Your task to perform on an android device: Search for the new nike shoes on Target Image 0: 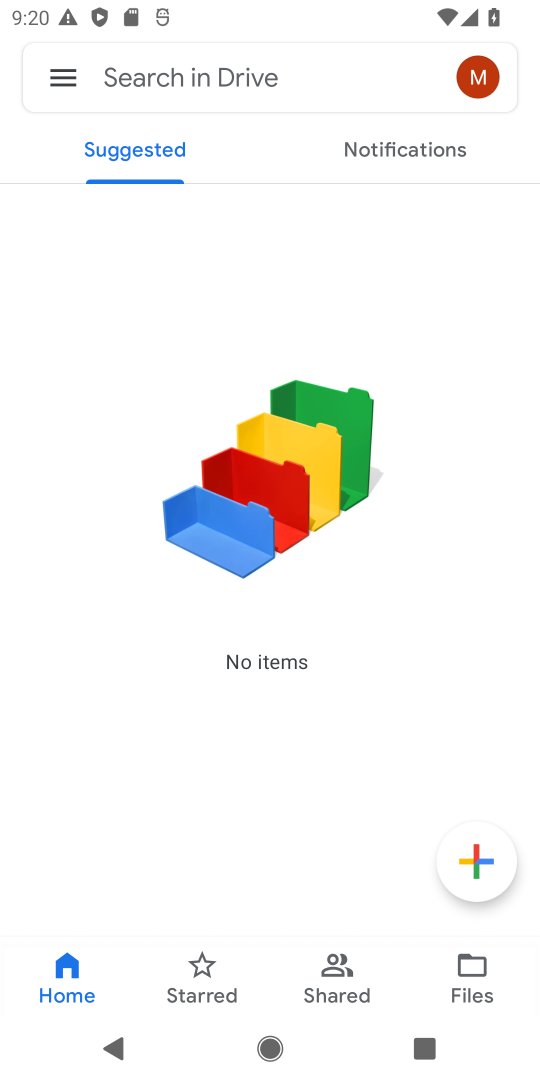
Step 0: press home button
Your task to perform on an android device: Search for the new nike shoes on Target Image 1: 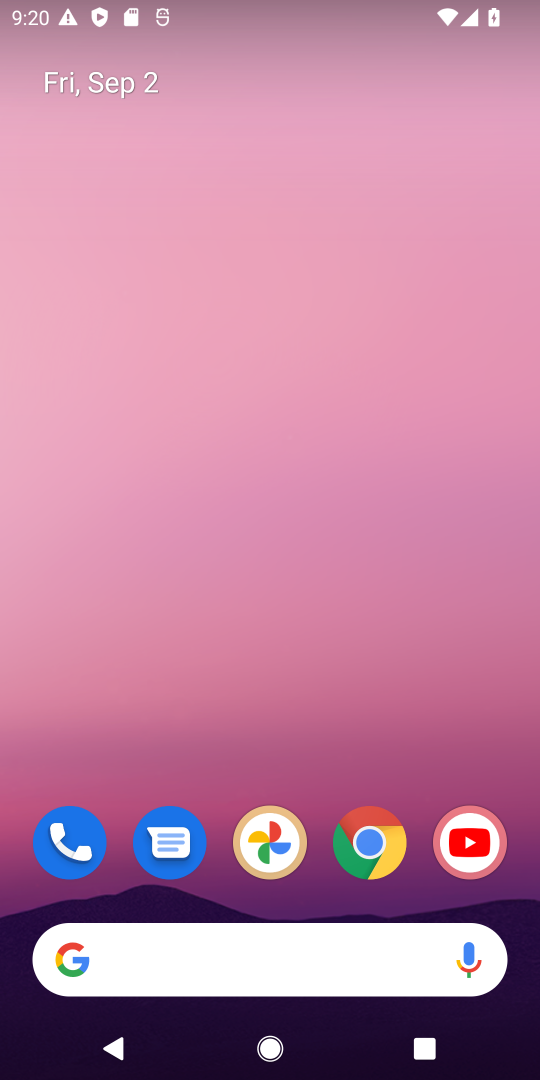
Step 1: drag from (239, 791) to (250, 122)
Your task to perform on an android device: Search for the new nike shoes on Target Image 2: 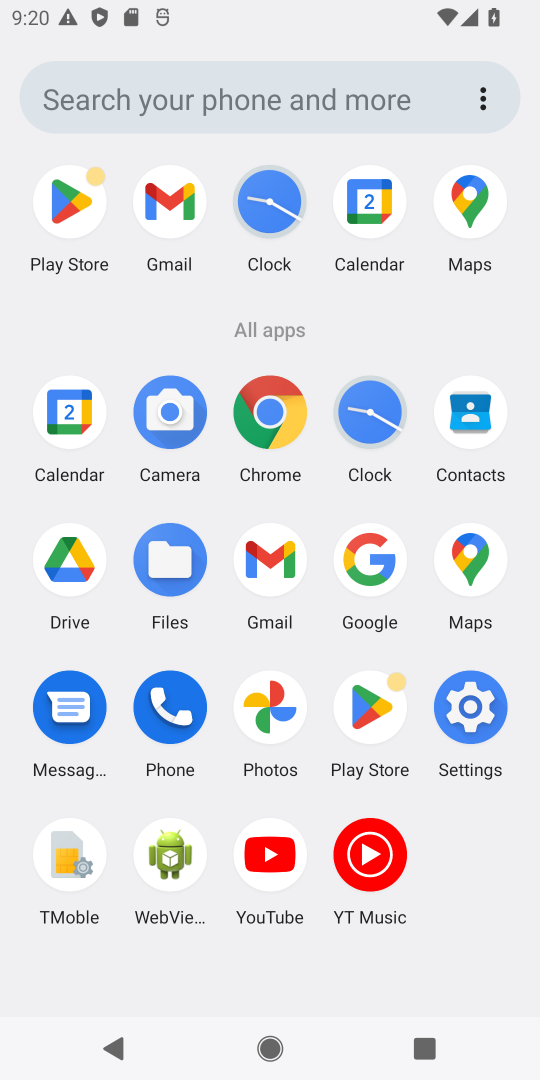
Step 2: click (278, 411)
Your task to perform on an android device: Search for the new nike shoes on Target Image 3: 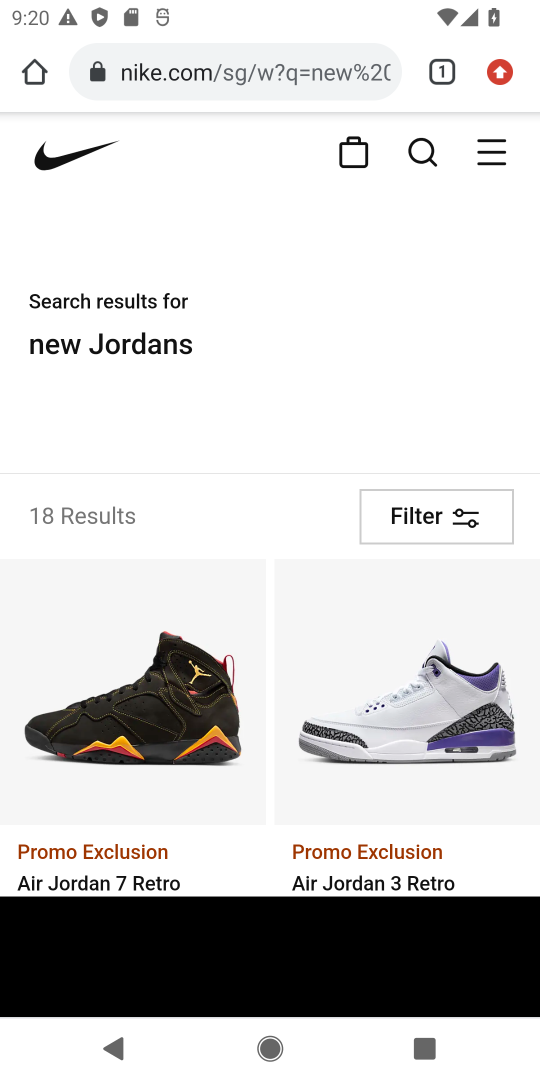
Step 3: click (252, 84)
Your task to perform on an android device: Search for the new nike shoes on Target Image 4: 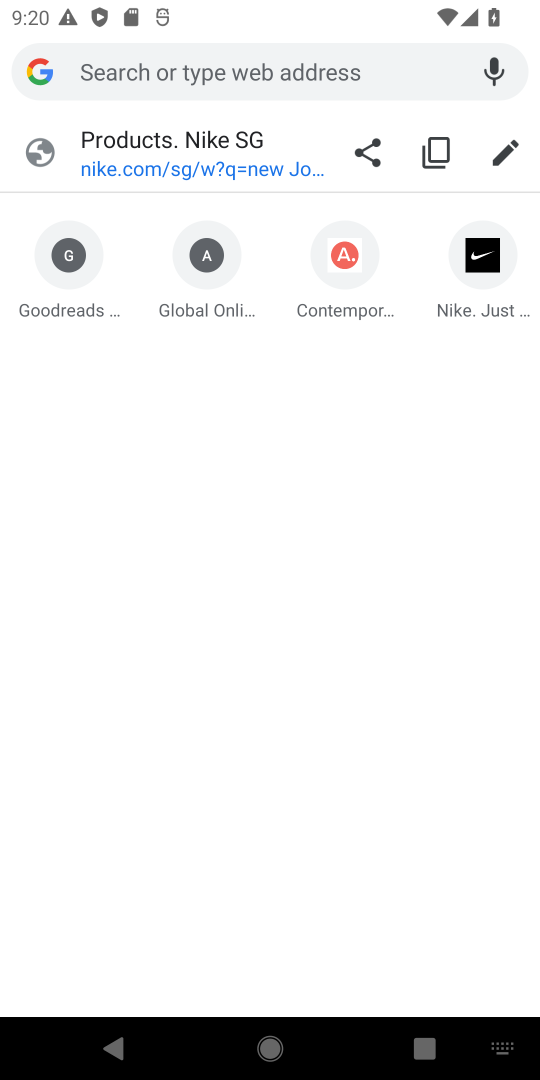
Step 4: press enter
Your task to perform on an android device: Search for the new nike shoes on Target Image 5: 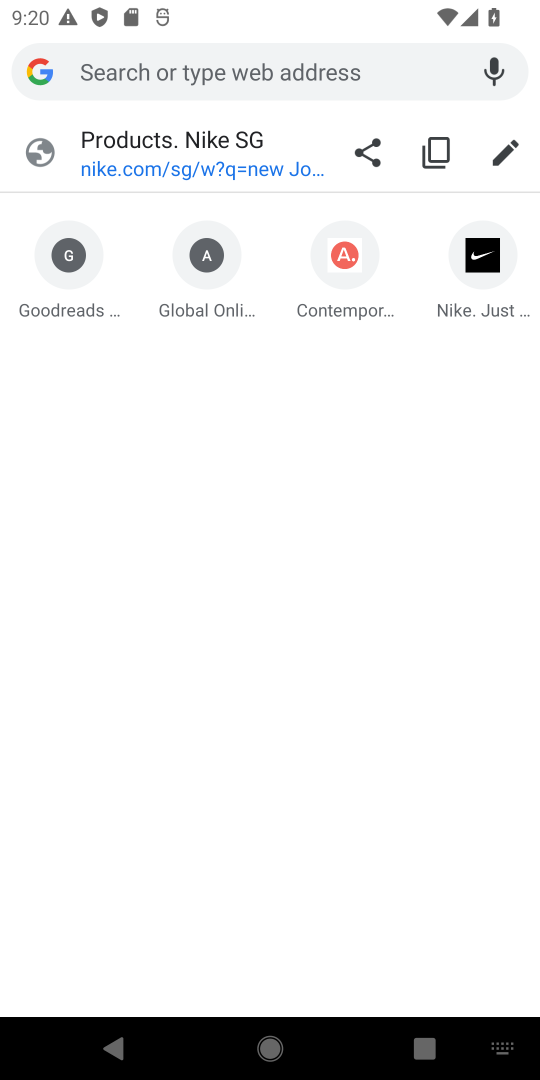
Step 5: type "Target"
Your task to perform on an android device: Search for the new nike shoes on Target Image 6: 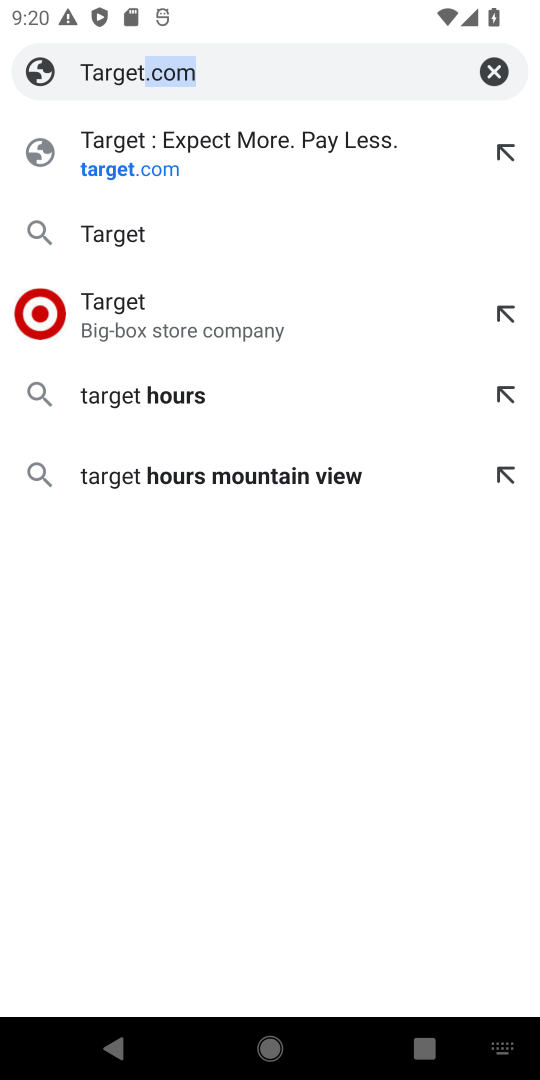
Step 6: press enter
Your task to perform on an android device: Search for the new nike shoes on Target Image 7: 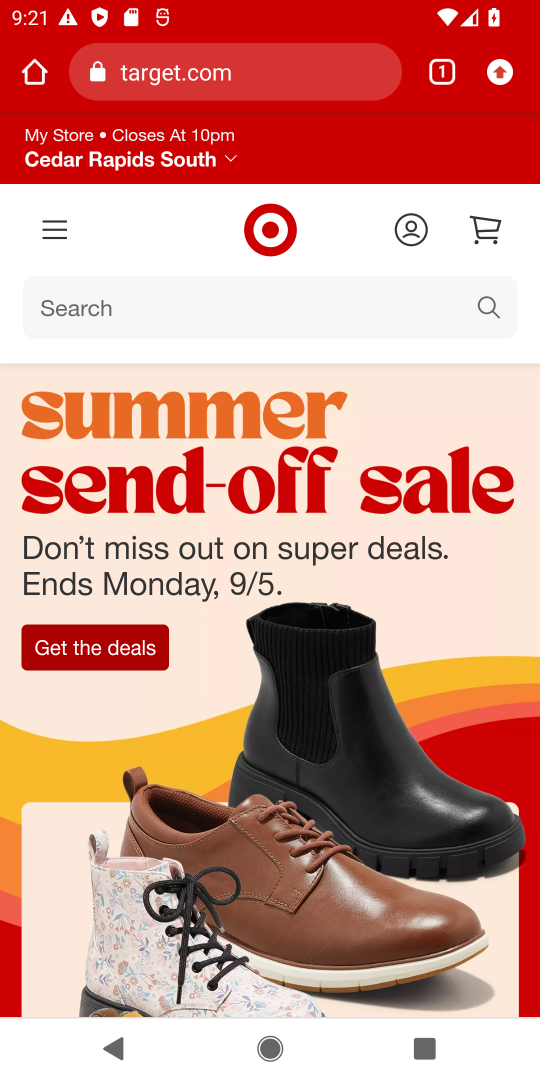
Step 7: click (479, 314)
Your task to perform on an android device: Search for the new nike shoes on Target Image 8: 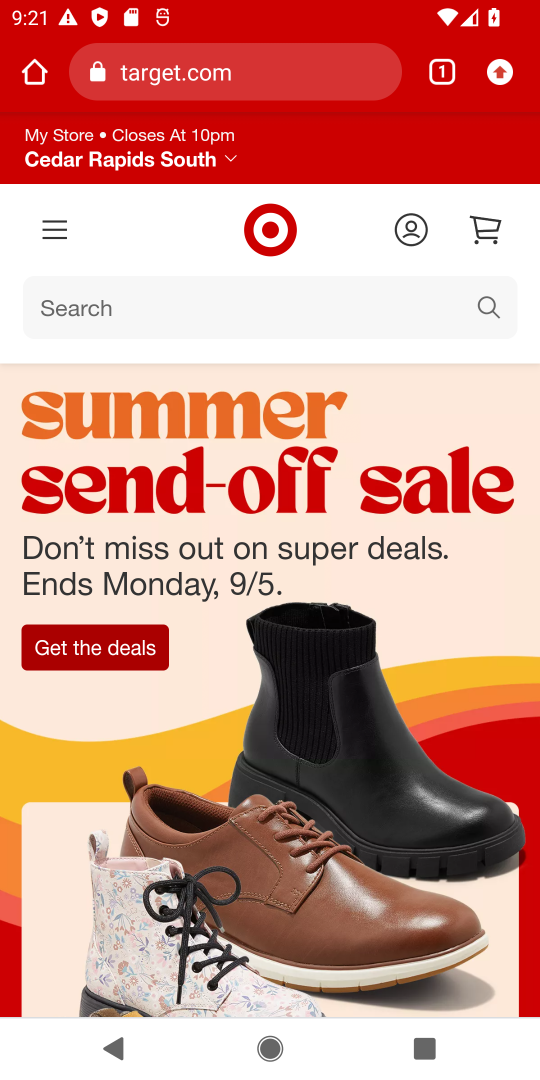
Step 8: click (329, 327)
Your task to perform on an android device: Search for the new nike shoes on Target Image 9: 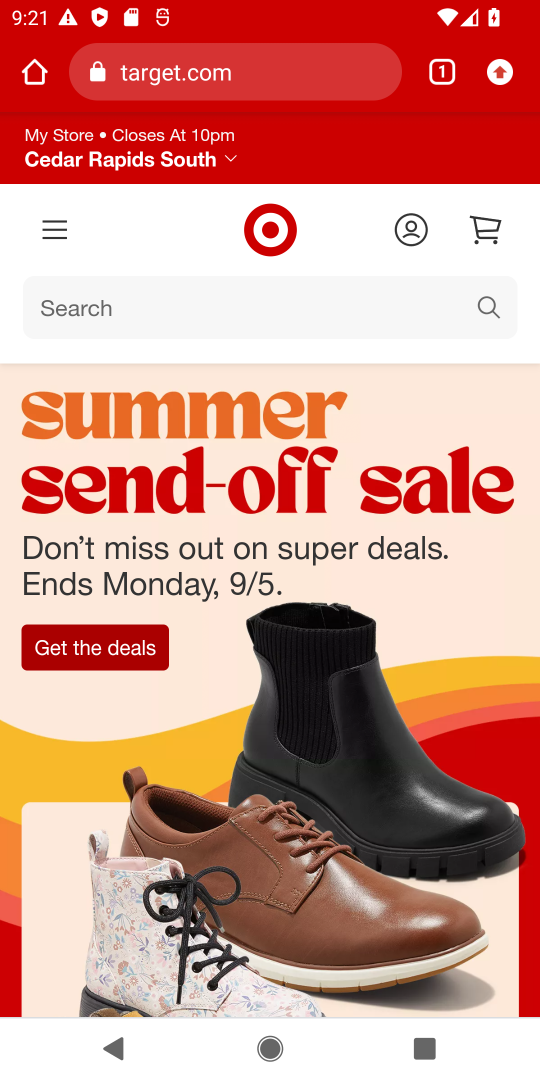
Step 9: click (82, 303)
Your task to perform on an android device: Search for the new nike shoes on Target Image 10: 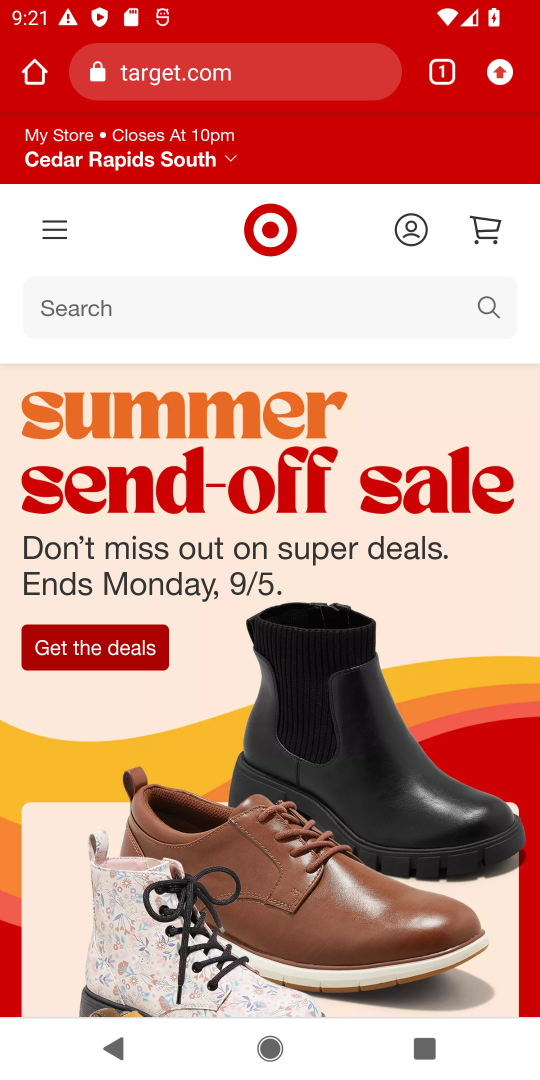
Step 10: click (488, 302)
Your task to perform on an android device: Search for the new nike shoes on Target Image 11: 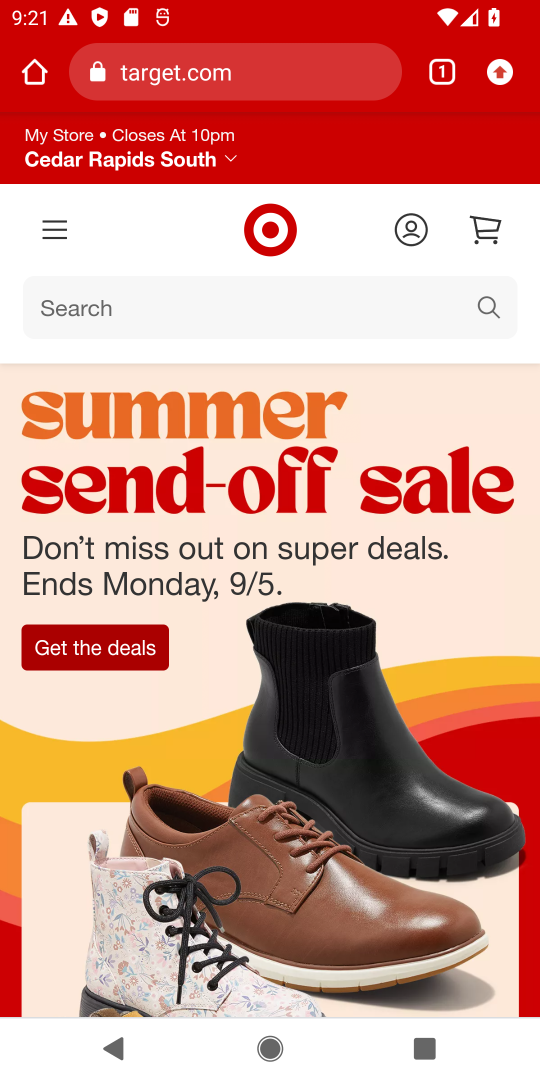
Step 11: click (271, 311)
Your task to perform on an android device: Search for the new nike shoes on Target Image 12: 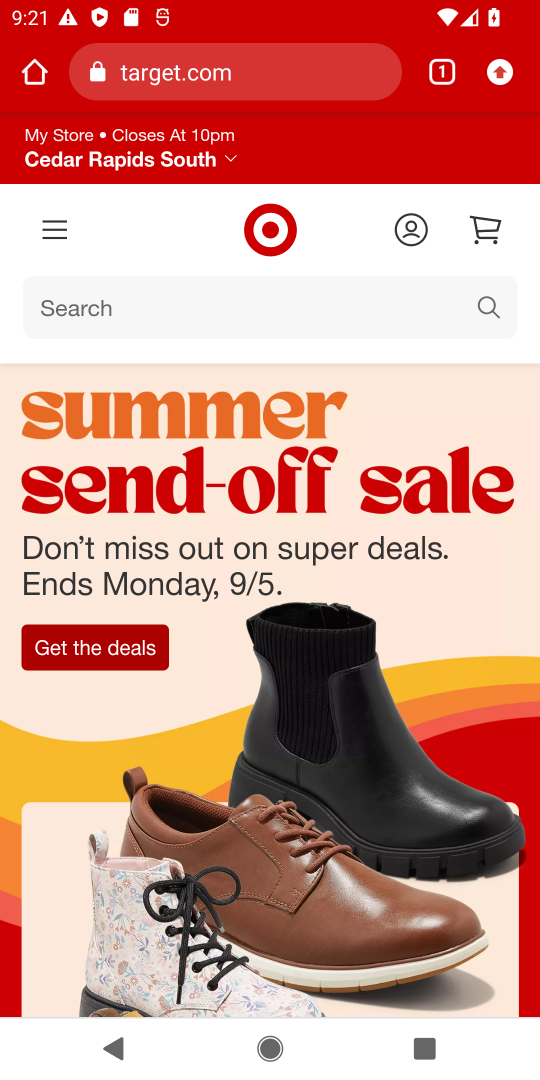
Step 12: click (93, 306)
Your task to perform on an android device: Search for the new nike shoes on Target Image 13: 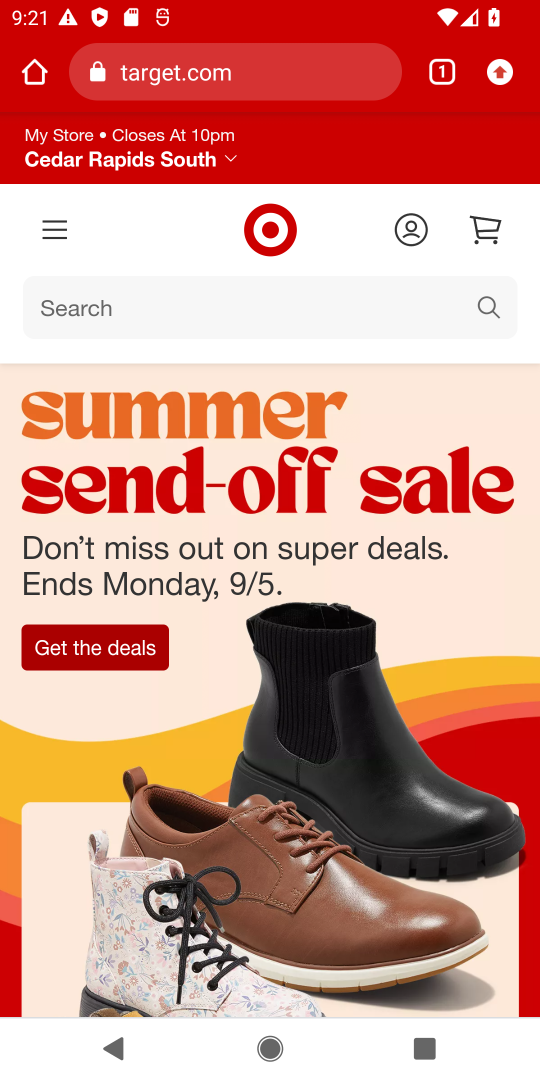
Step 13: click (93, 305)
Your task to perform on an android device: Search for the new nike shoes on Target Image 14: 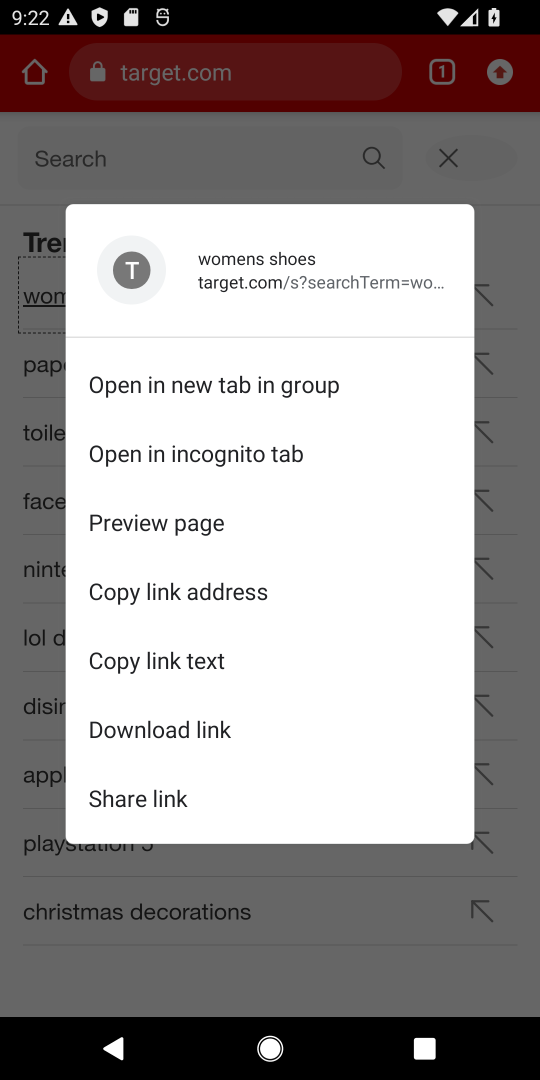
Step 14: click (165, 157)
Your task to perform on an android device: Search for the new nike shoes on Target Image 15: 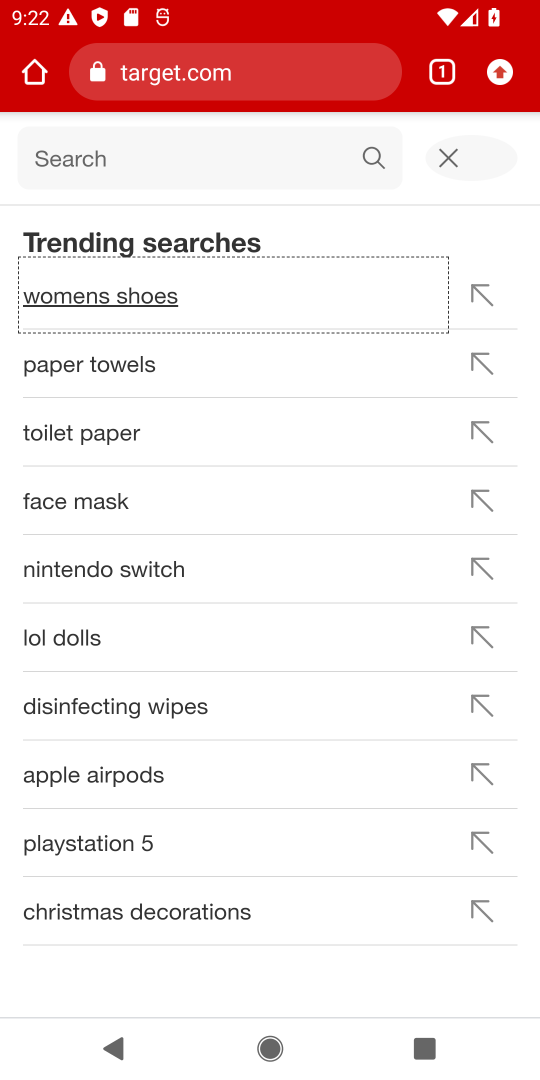
Step 15: type "new nike shoes"
Your task to perform on an android device: Search for the new nike shoes on Target Image 16: 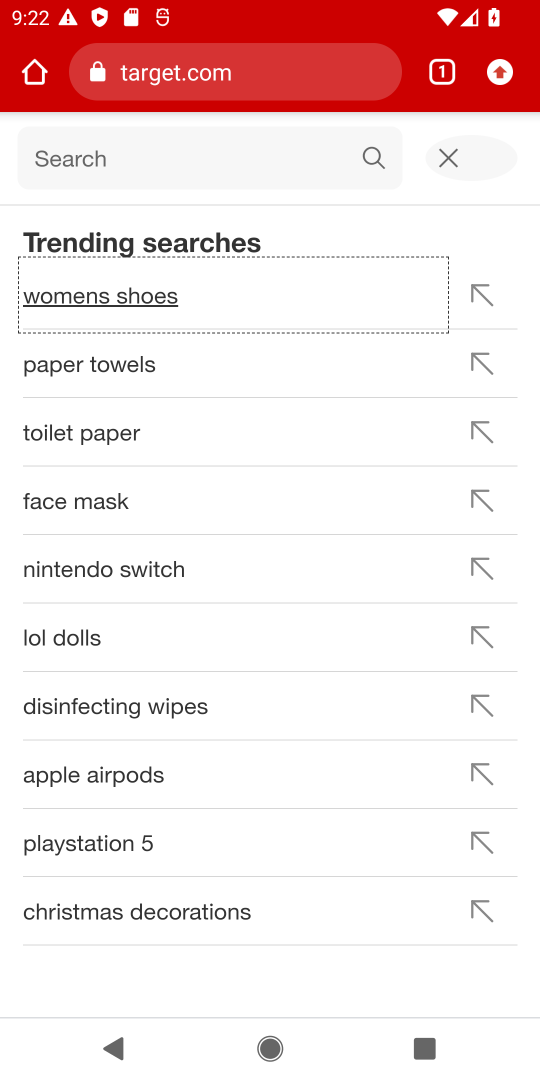
Step 16: press enter
Your task to perform on an android device: Search for the new nike shoes on Target Image 17: 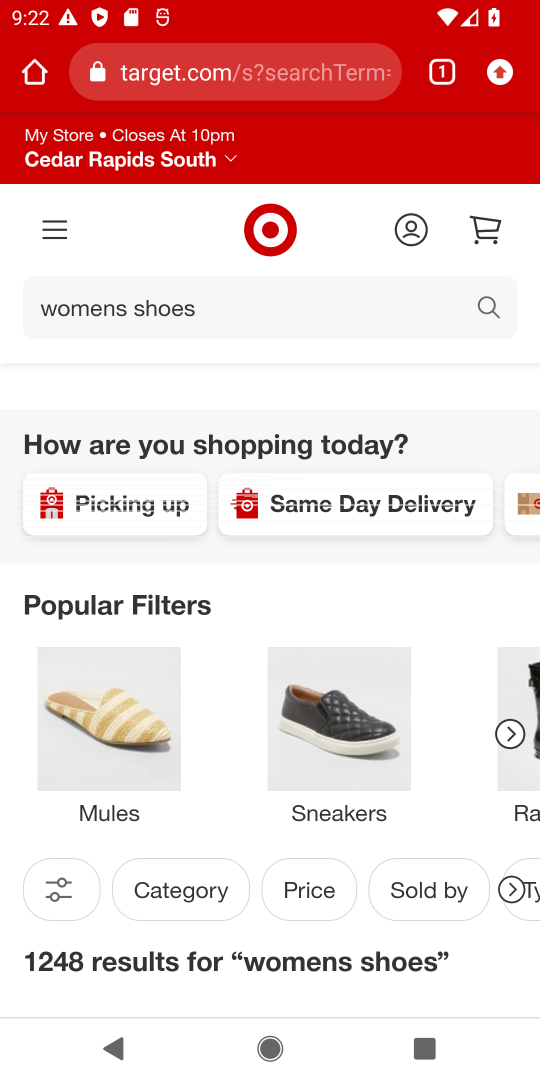
Step 17: task complete